Your task to perform on an android device: turn on improve location accuracy Image 0: 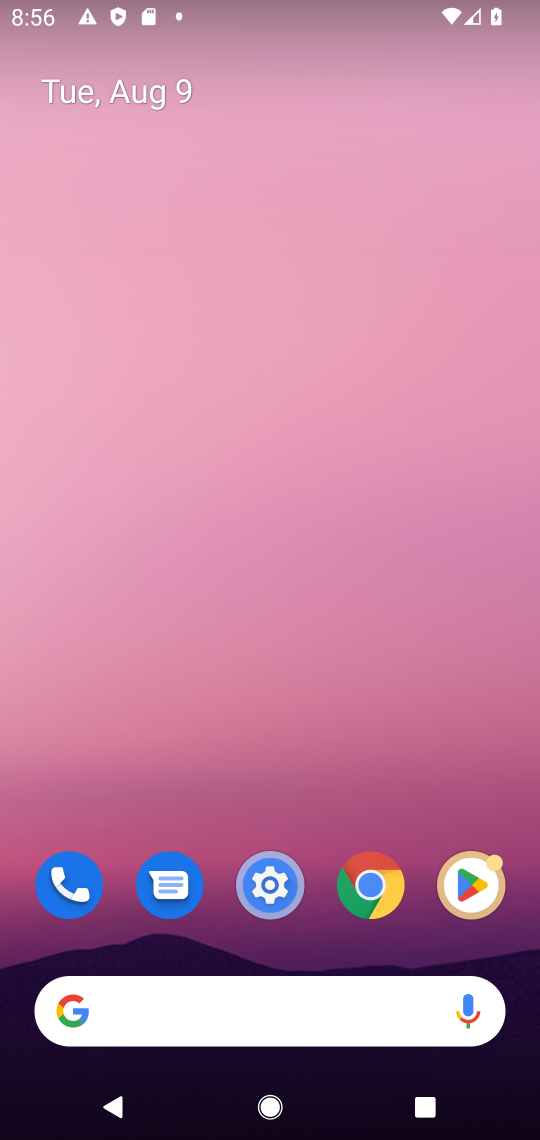
Step 0: click (260, 898)
Your task to perform on an android device: turn on improve location accuracy Image 1: 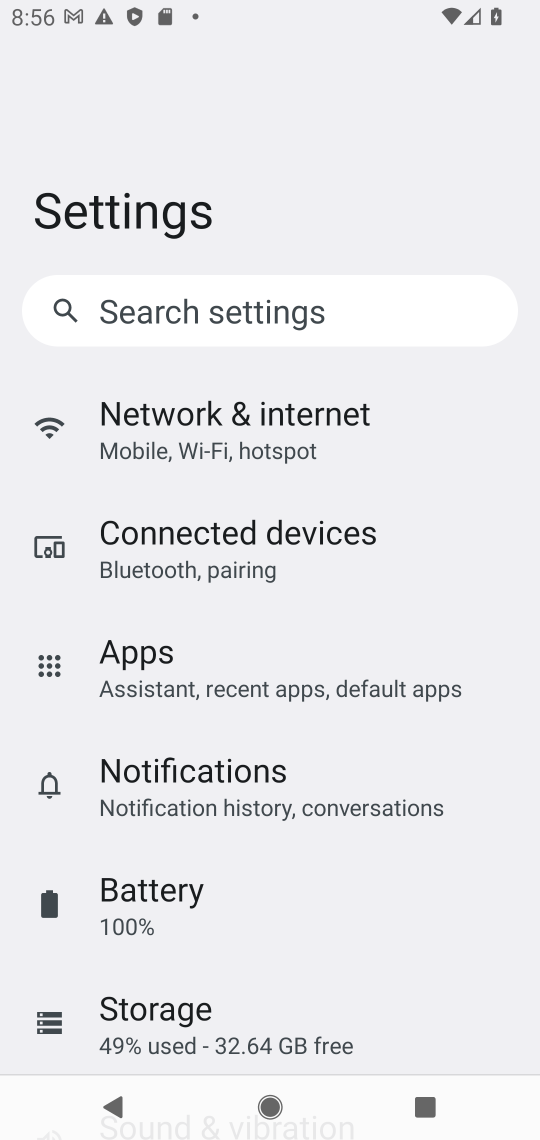
Step 1: drag from (179, 965) to (176, 299)
Your task to perform on an android device: turn on improve location accuracy Image 2: 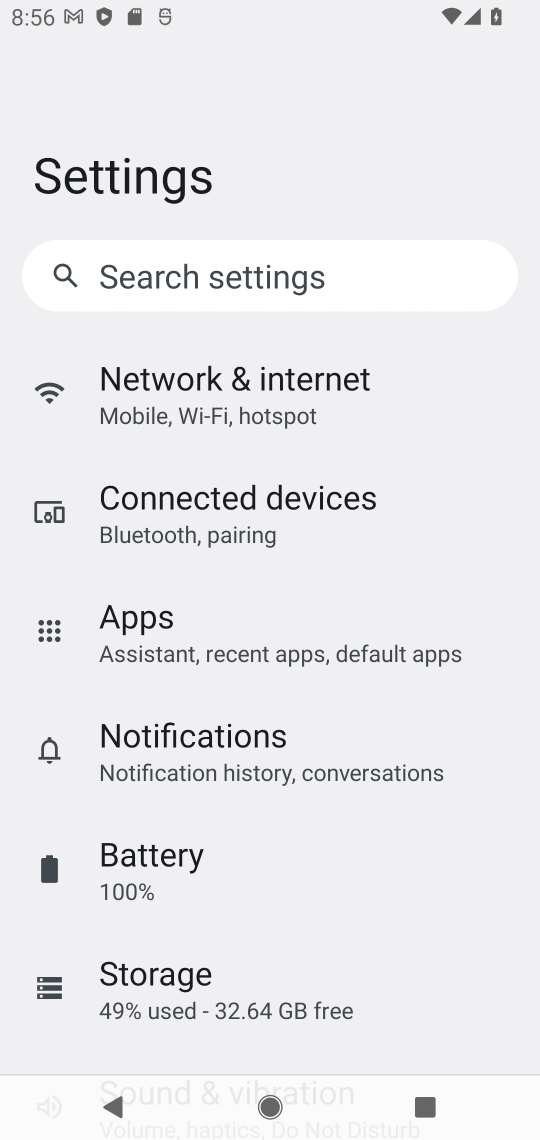
Step 2: drag from (182, 860) to (161, 267)
Your task to perform on an android device: turn on improve location accuracy Image 3: 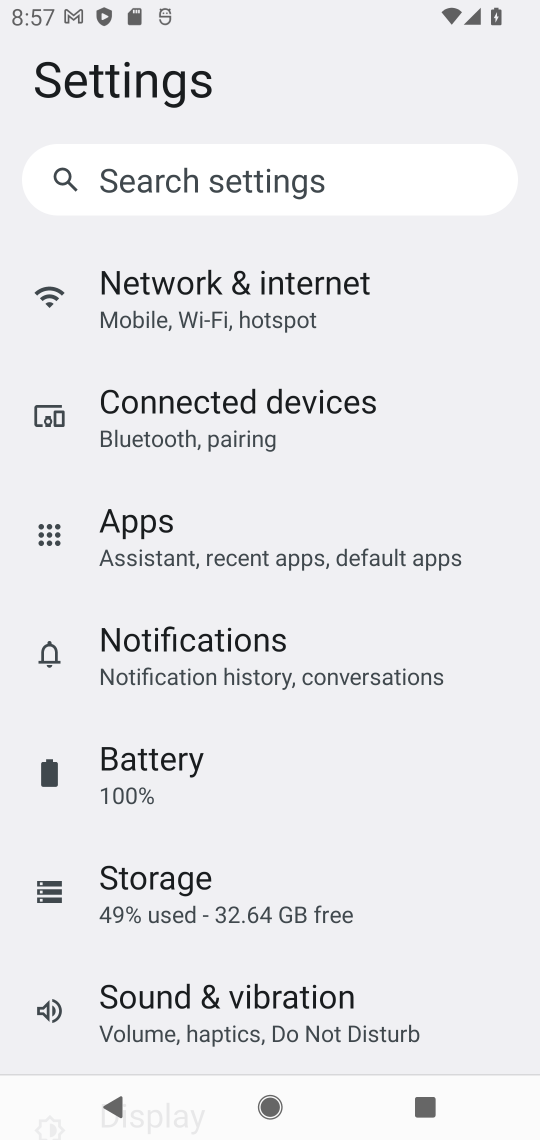
Step 3: drag from (147, 928) to (112, 31)
Your task to perform on an android device: turn on improve location accuracy Image 4: 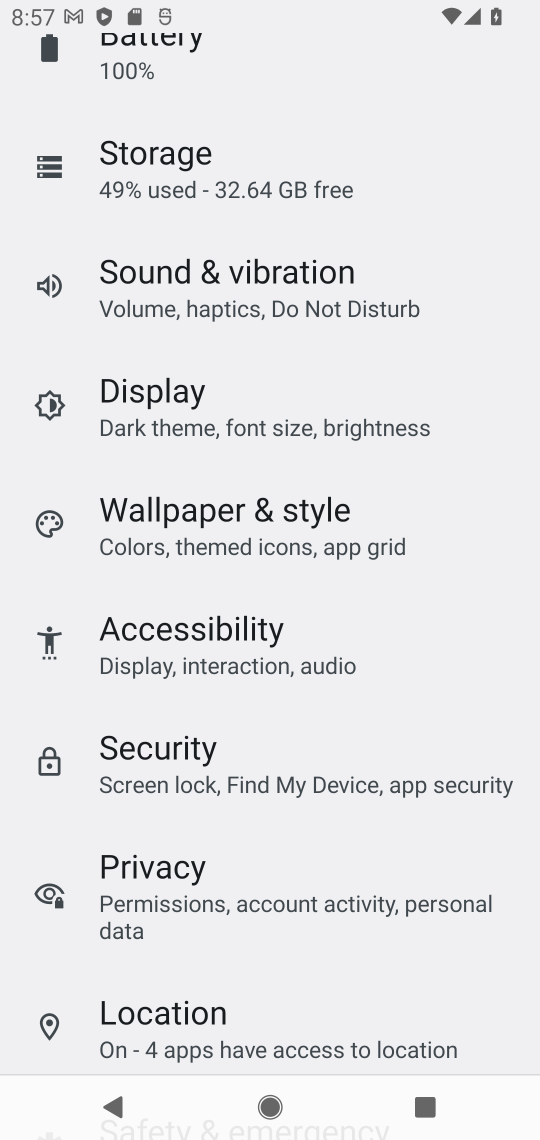
Step 4: click (133, 1011)
Your task to perform on an android device: turn on improve location accuracy Image 5: 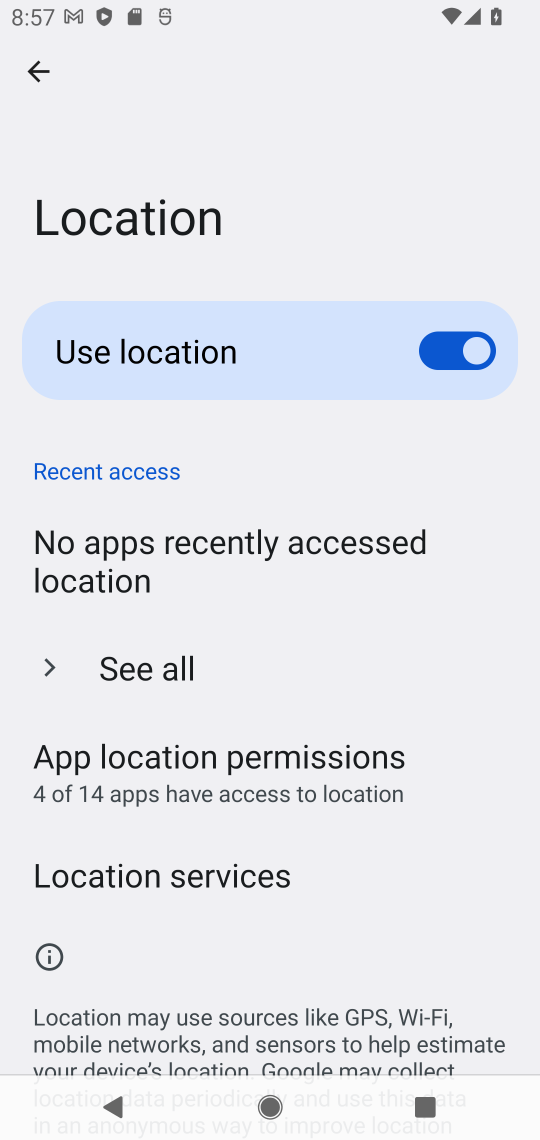
Step 5: click (224, 868)
Your task to perform on an android device: turn on improve location accuracy Image 6: 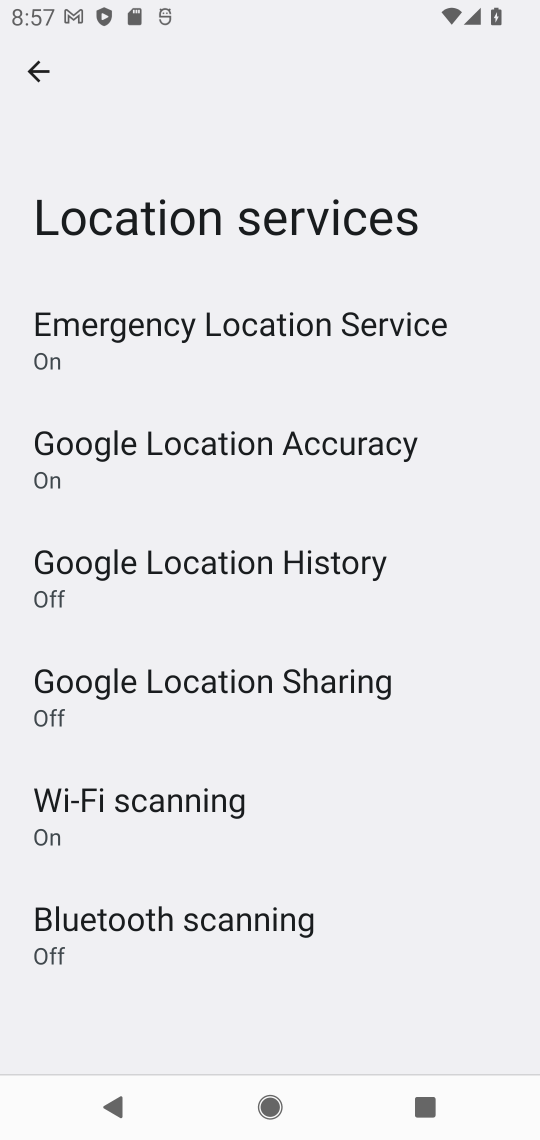
Step 6: click (337, 445)
Your task to perform on an android device: turn on improve location accuracy Image 7: 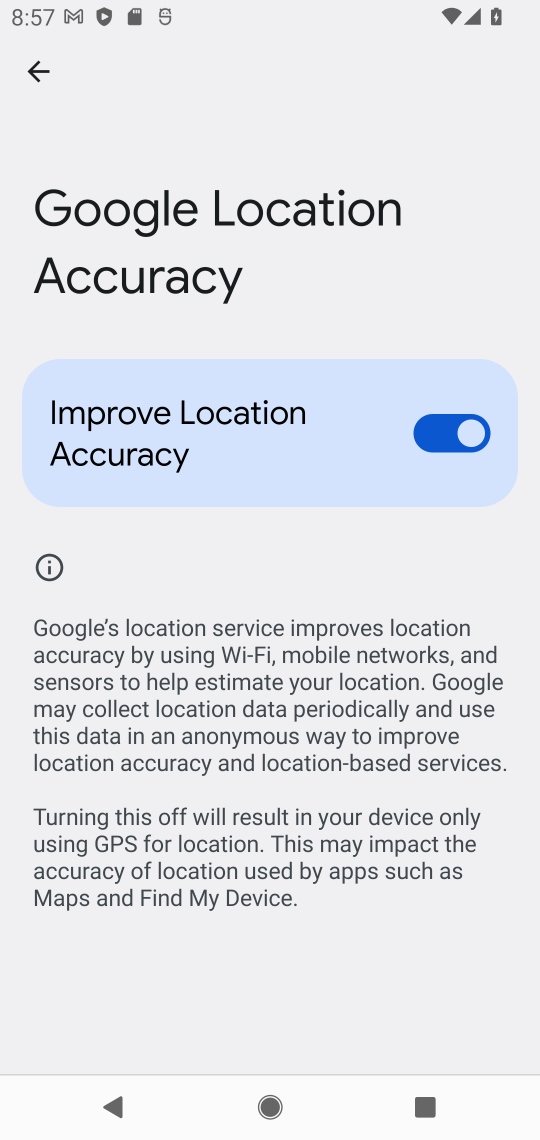
Step 7: task complete